Your task to perform on an android device: toggle location history Image 0: 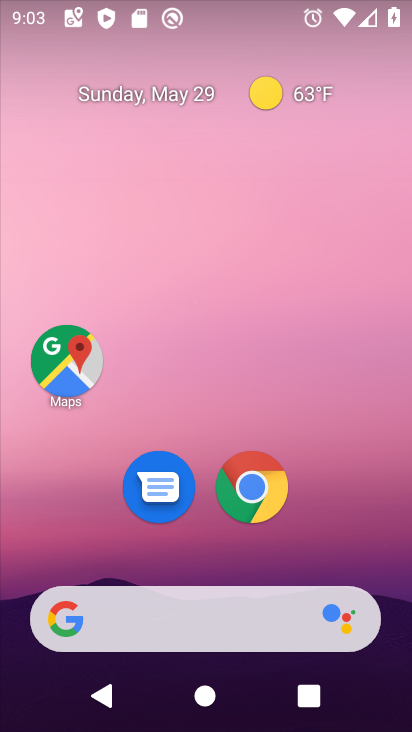
Step 0: drag from (223, 577) to (288, 129)
Your task to perform on an android device: toggle location history Image 1: 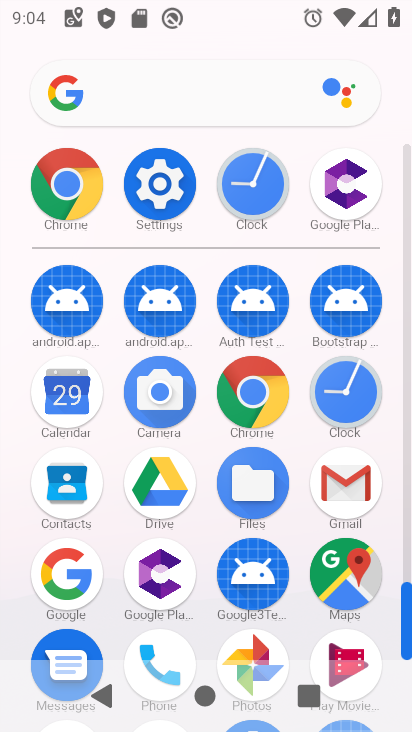
Step 1: click (157, 194)
Your task to perform on an android device: toggle location history Image 2: 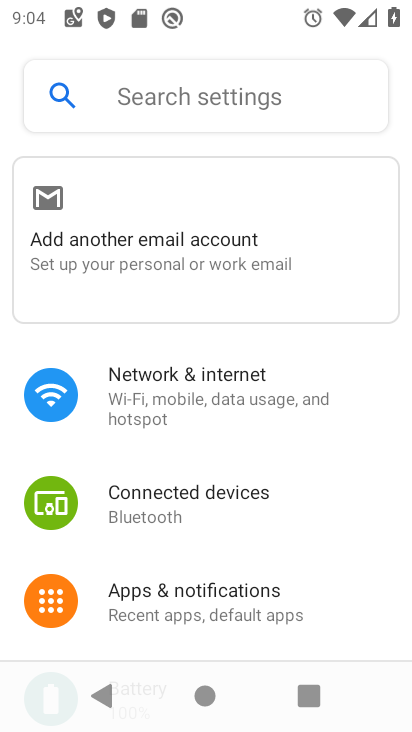
Step 2: drag from (175, 500) to (196, 188)
Your task to perform on an android device: toggle location history Image 3: 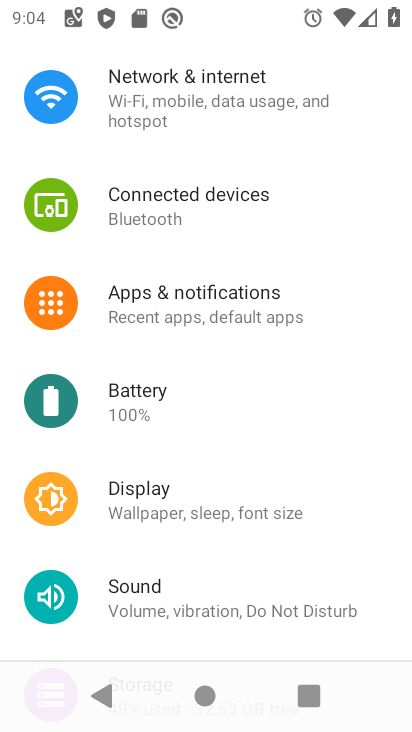
Step 3: drag from (207, 520) to (206, 263)
Your task to perform on an android device: toggle location history Image 4: 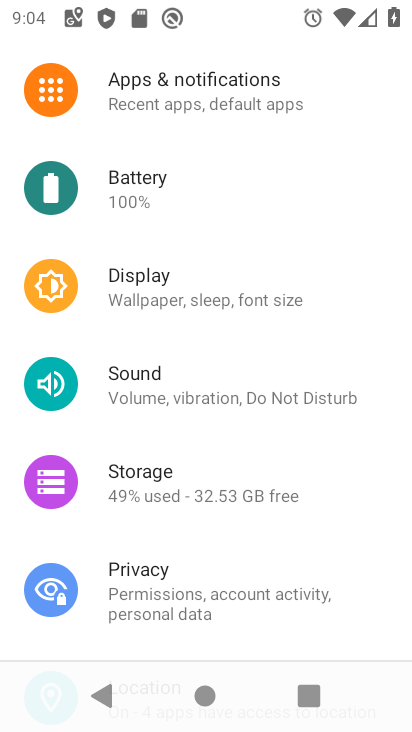
Step 4: drag from (233, 525) to (267, 328)
Your task to perform on an android device: toggle location history Image 5: 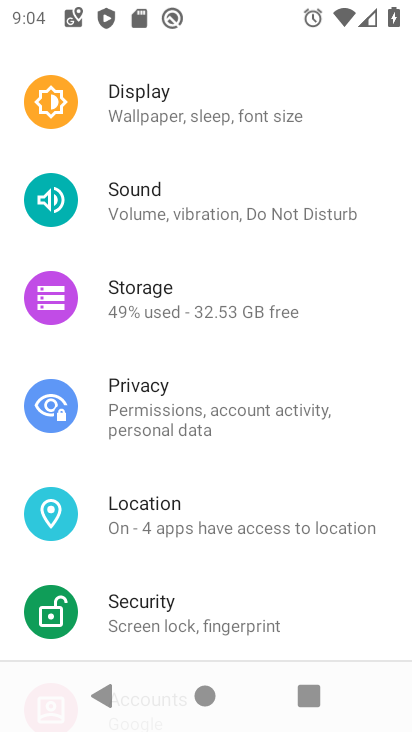
Step 5: click (206, 518)
Your task to perform on an android device: toggle location history Image 6: 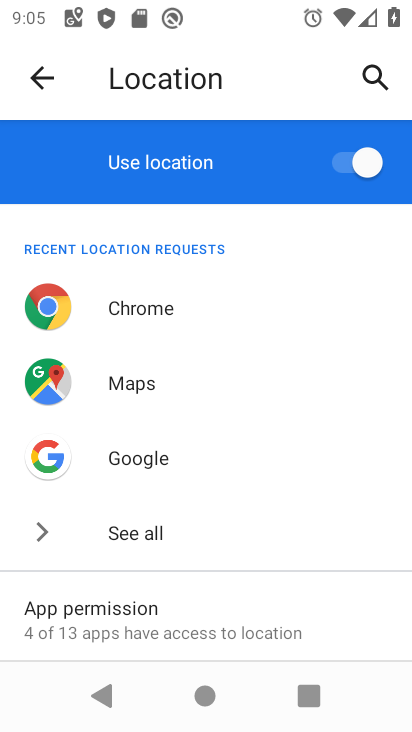
Step 6: drag from (204, 578) to (253, 238)
Your task to perform on an android device: toggle location history Image 7: 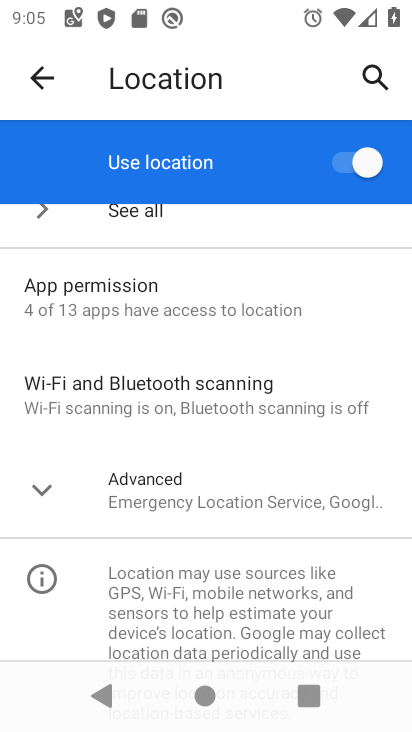
Step 7: drag from (193, 543) to (221, 239)
Your task to perform on an android device: toggle location history Image 8: 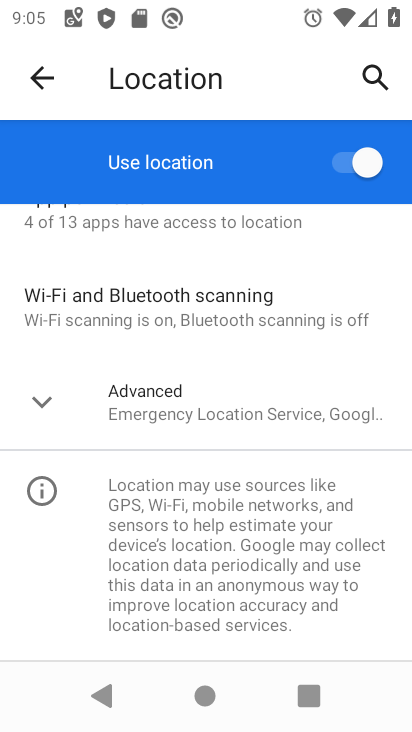
Step 8: drag from (200, 540) to (236, 281)
Your task to perform on an android device: toggle location history Image 9: 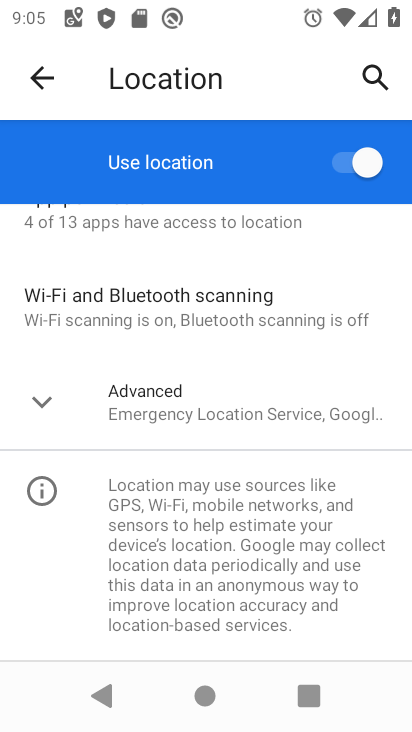
Step 9: click (232, 398)
Your task to perform on an android device: toggle location history Image 10: 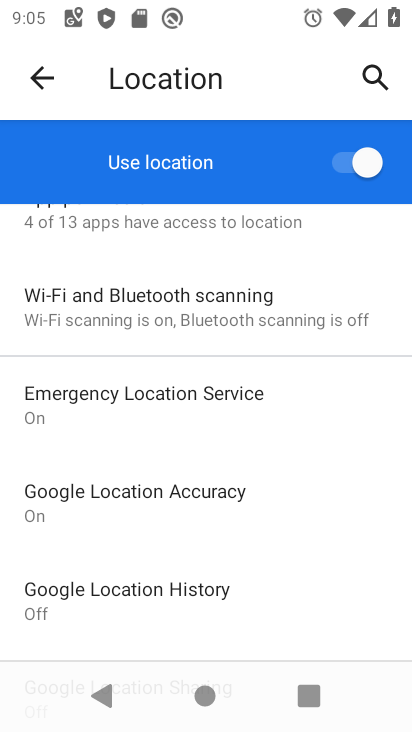
Step 10: click (238, 591)
Your task to perform on an android device: toggle location history Image 11: 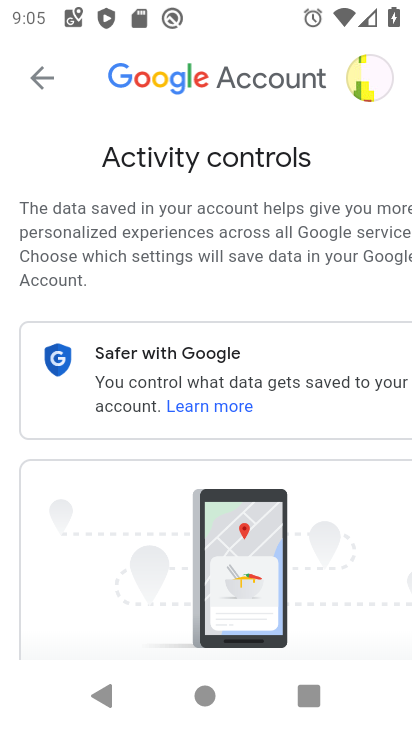
Step 11: drag from (208, 568) to (245, 57)
Your task to perform on an android device: toggle location history Image 12: 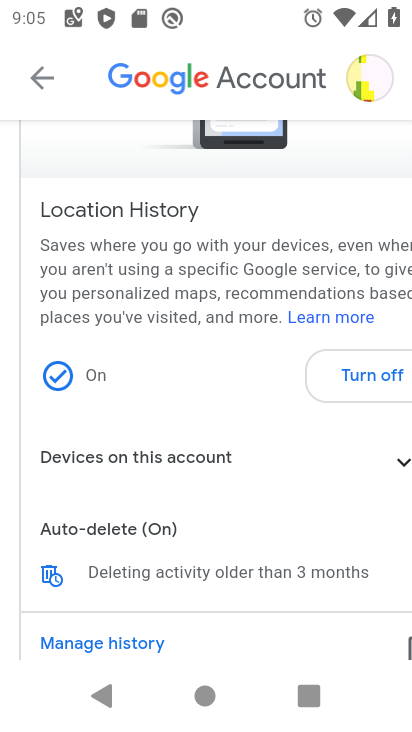
Step 12: drag from (198, 535) to (15, 337)
Your task to perform on an android device: toggle location history Image 13: 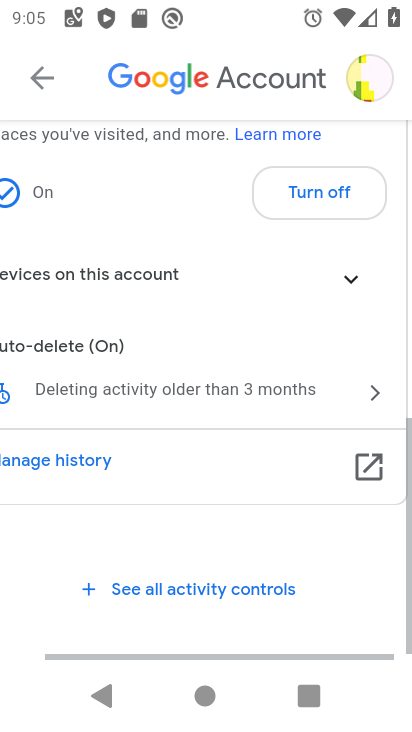
Step 13: drag from (228, 456) to (276, 186)
Your task to perform on an android device: toggle location history Image 14: 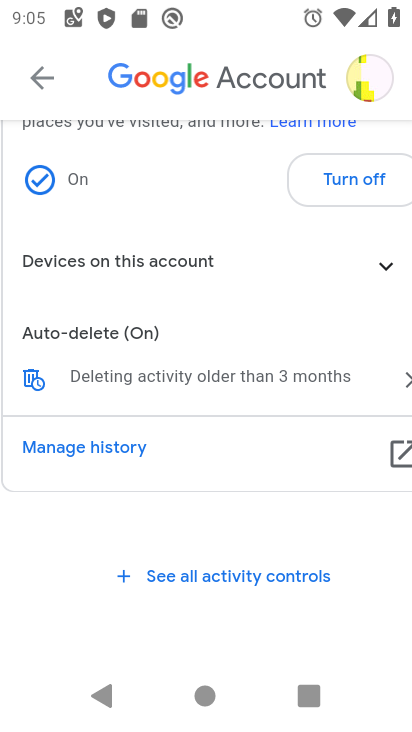
Step 14: click (387, 179)
Your task to perform on an android device: toggle location history Image 15: 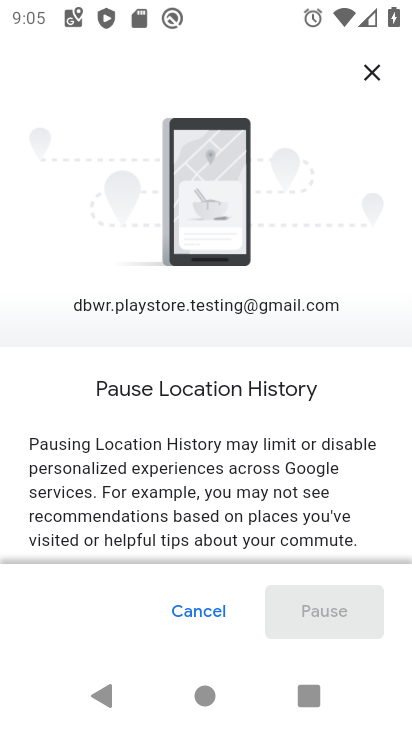
Step 15: drag from (269, 460) to (294, 1)
Your task to perform on an android device: toggle location history Image 16: 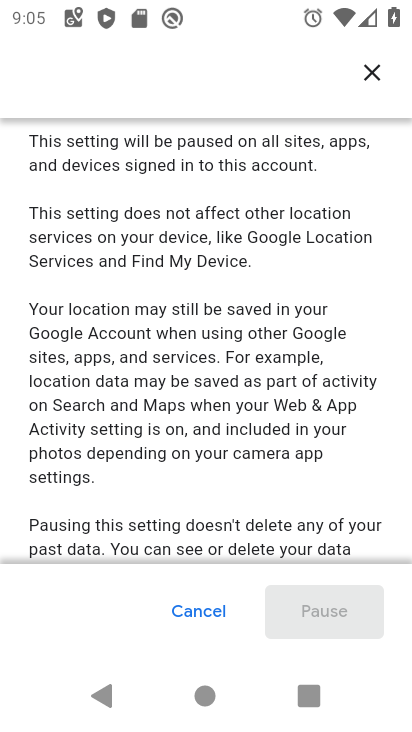
Step 16: drag from (254, 375) to (313, 6)
Your task to perform on an android device: toggle location history Image 17: 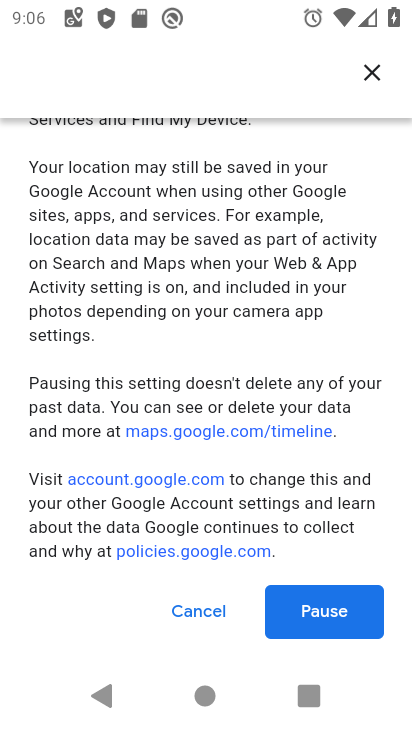
Step 17: click (346, 615)
Your task to perform on an android device: toggle location history Image 18: 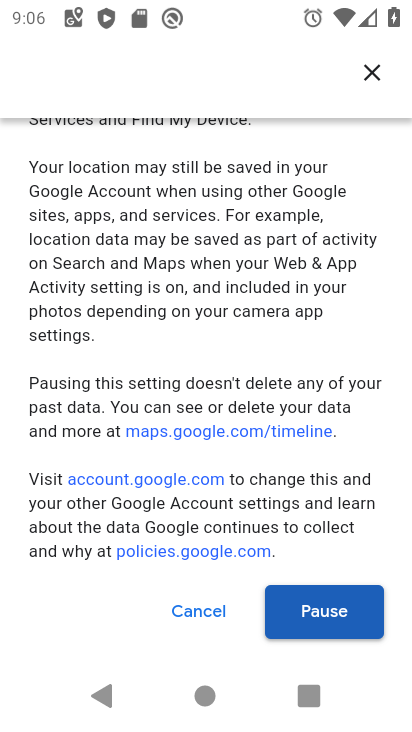
Step 18: click (359, 610)
Your task to perform on an android device: toggle location history Image 19: 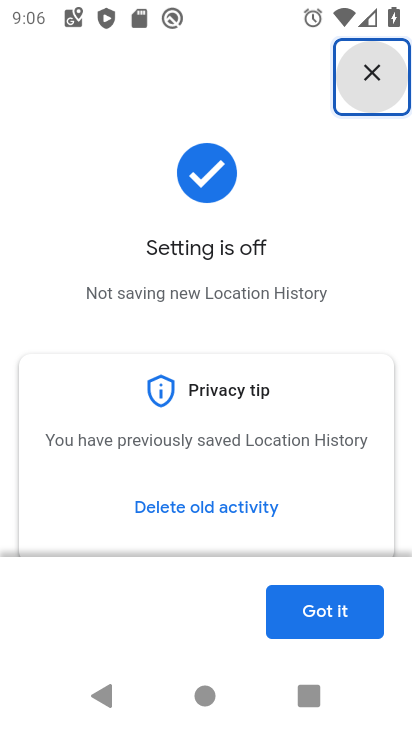
Step 19: click (340, 618)
Your task to perform on an android device: toggle location history Image 20: 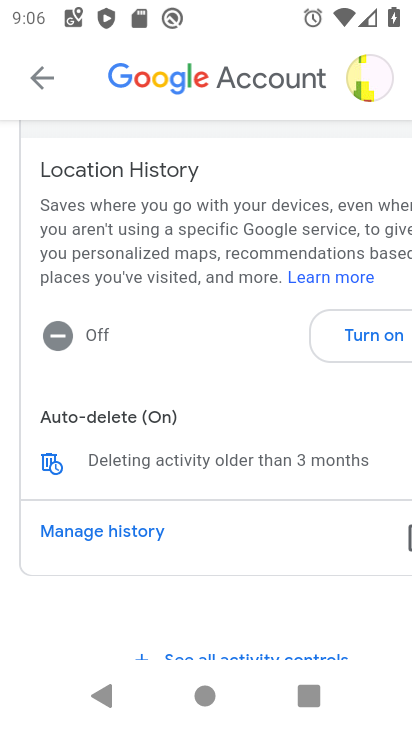
Step 20: task complete